Your task to perform on an android device: Open Google Maps and go to "Timeline" Image 0: 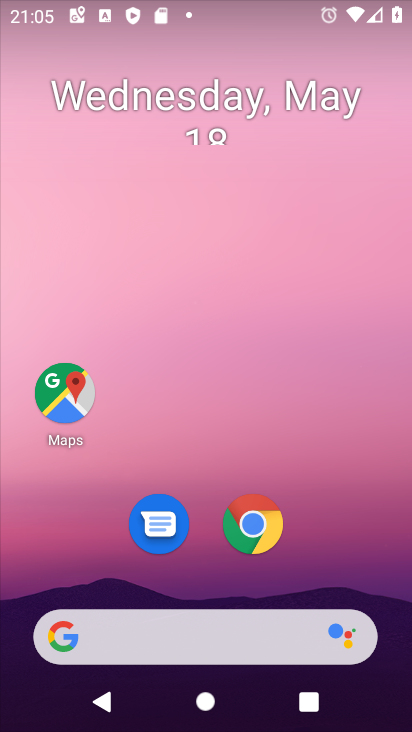
Step 0: click (50, 384)
Your task to perform on an android device: Open Google Maps and go to "Timeline" Image 1: 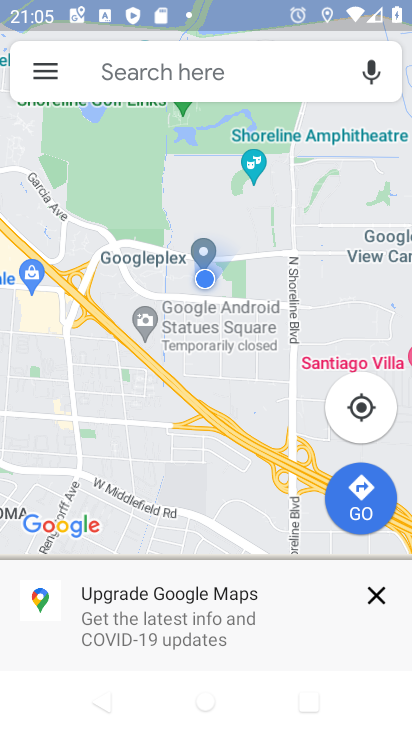
Step 1: click (46, 72)
Your task to perform on an android device: Open Google Maps and go to "Timeline" Image 2: 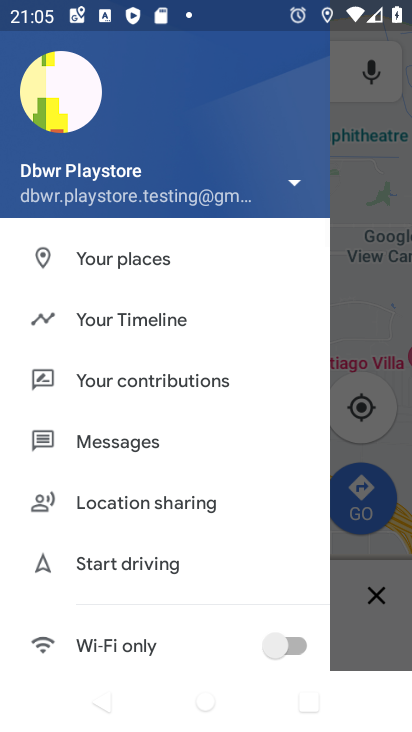
Step 2: click (145, 314)
Your task to perform on an android device: Open Google Maps and go to "Timeline" Image 3: 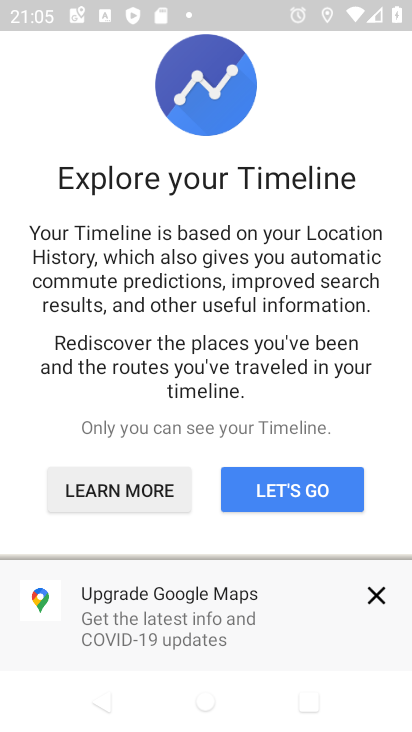
Step 3: click (299, 488)
Your task to perform on an android device: Open Google Maps and go to "Timeline" Image 4: 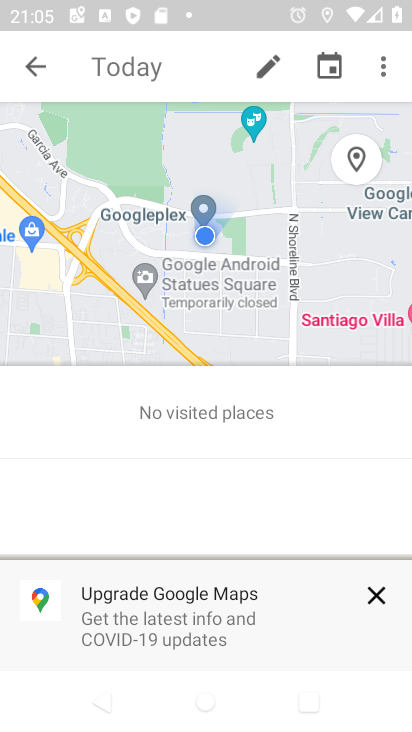
Step 4: task complete